Your task to perform on an android device: Open Youtube and go to the subscriptions tab Image 0: 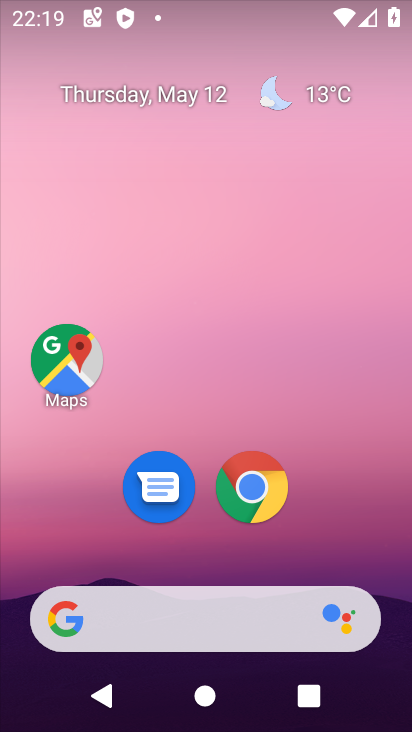
Step 0: drag from (211, 551) to (228, 159)
Your task to perform on an android device: Open Youtube and go to the subscriptions tab Image 1: 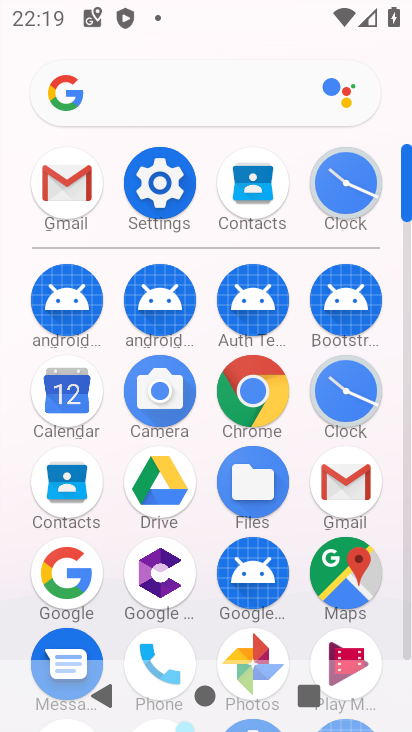
Step 1: drag from (199, 640) to (150, 235)
Your task to perform on an android device: Open Youtube and go to the subscriptions tab Image 2: 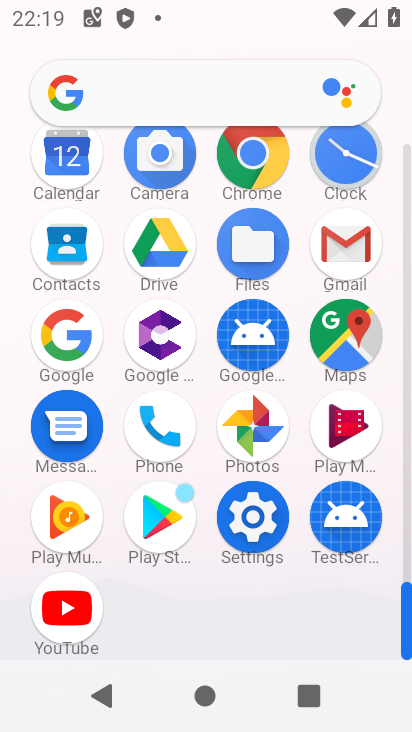
Step 2: click (68, 608)
Your task to perform on an android device: Open Youtube and go to the subscriptions tab Image 3: 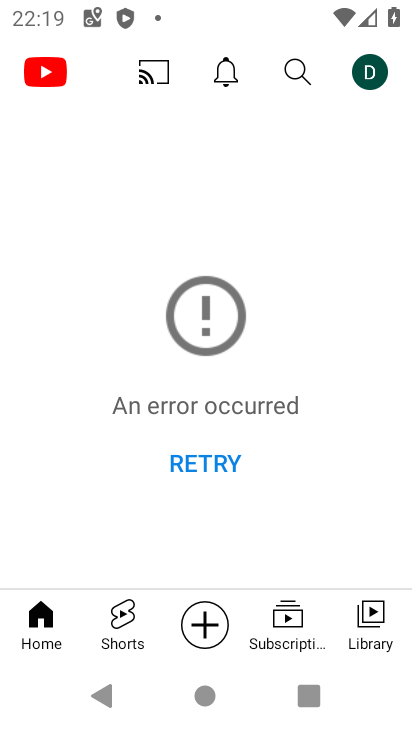
Step 3: click (299, 646)
Your task to perform on an android device: Open Youtube and go to the subscriptions tab Image 4: 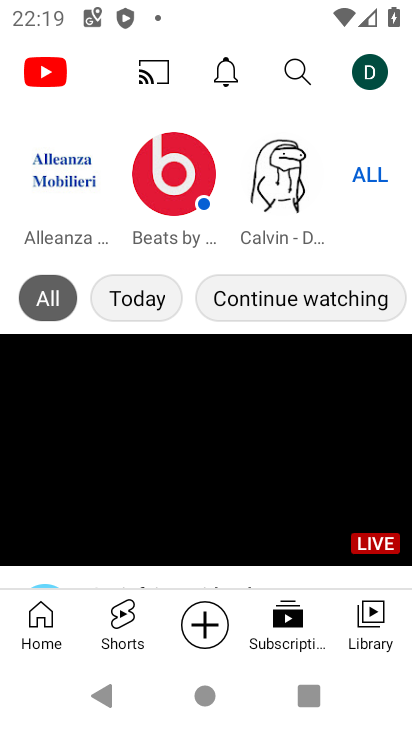
Step 4: task complete